Your task to perform on an android device: toggle location history Image 0: 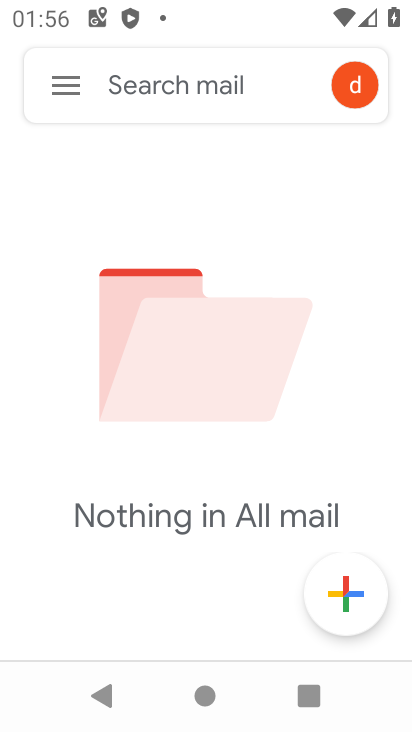
Step 0: press back button
Your task to perform on an android device: toggle location history Image 1: 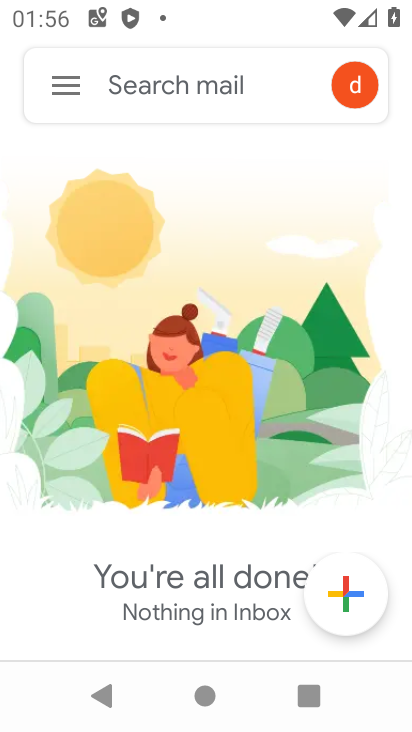
Step 1: press home button
Your task to perform on an android device: toggle location history Image 2: 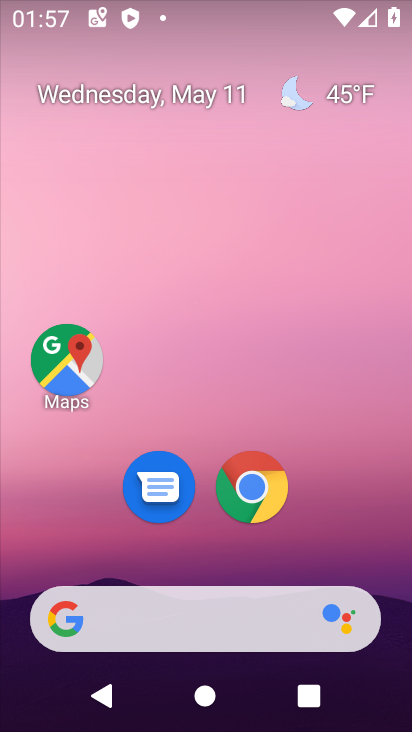
Step 2: drag from (178, 569) to (271, 143)
Your task to perform on an android device: toggle location history Image 3: 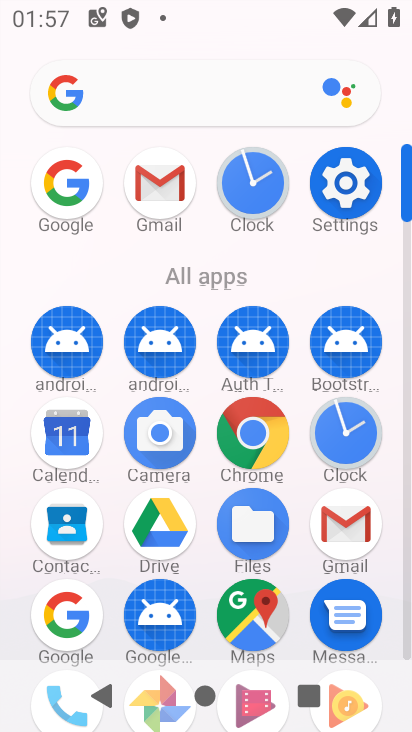
Step 3: drag from (176, 634) to (265, 324)
Your task to perform on an android device: toggle location history Image 4: 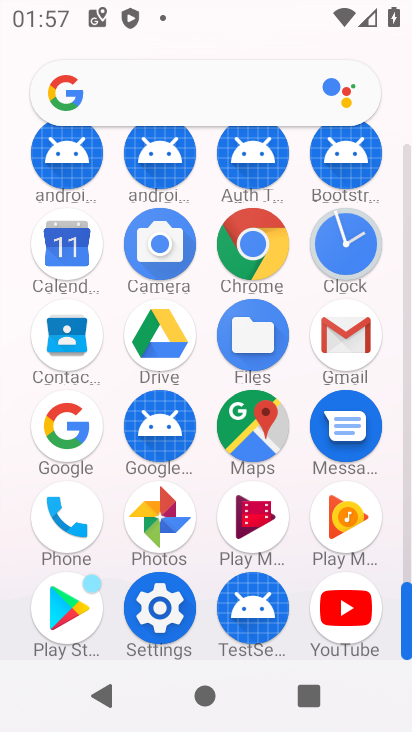
Step 4: click (167, 617)
Your task to perform on an android device: toggle location history Image 5: 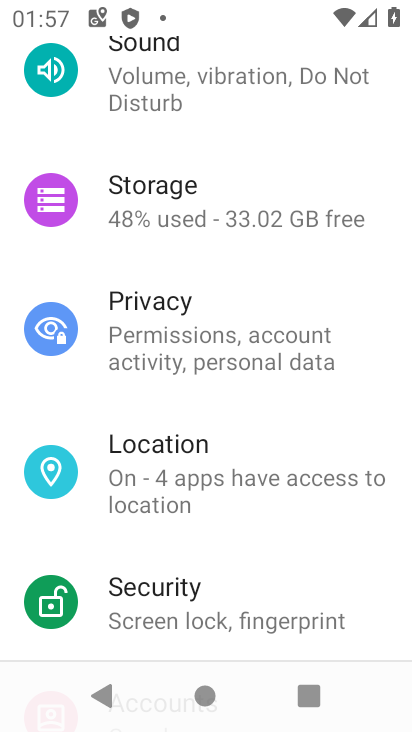
Step 5: click (251, 501)
Your task to perform on an android device: toggle location history Image 6: 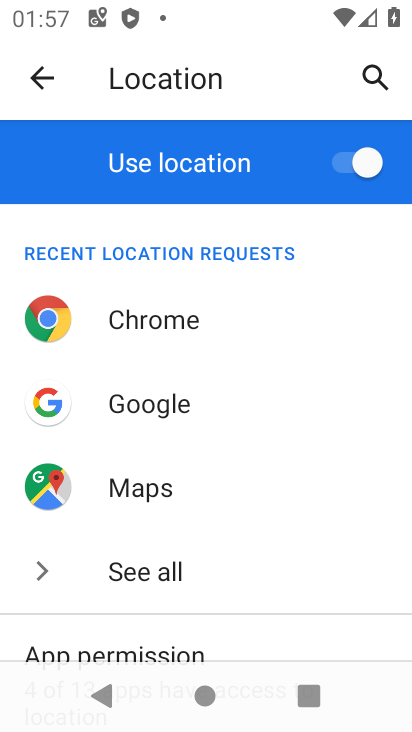
Step 6: drag from (201, 609) to (250, 377)
Your task to perform on an android device: toggle location history Image 7: 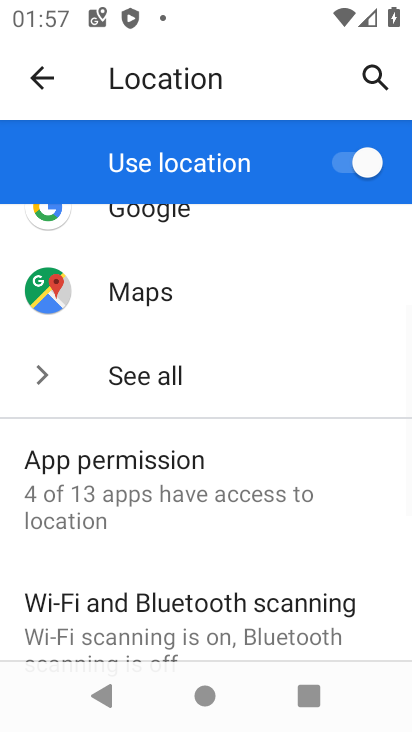
Step 7: drag from (187, 638) to (253, 316)
Your task to perform on an android device: toggle location history Image 8: 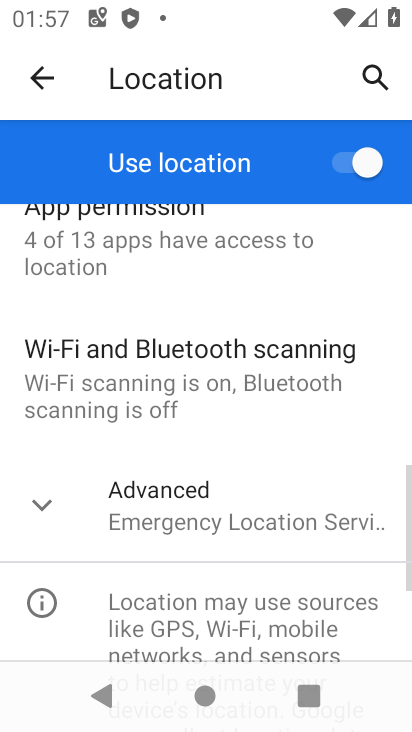
Step 8: click (234, 548)
Your task to perform on an android device: toggle location history Image 9: 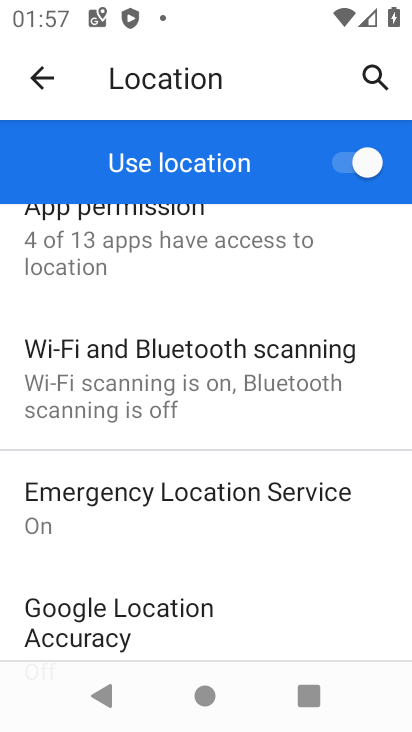
Step 9: drag from (158, 603) to (235, 270)
Your task to perform on an android device: toggle location history Image 10: 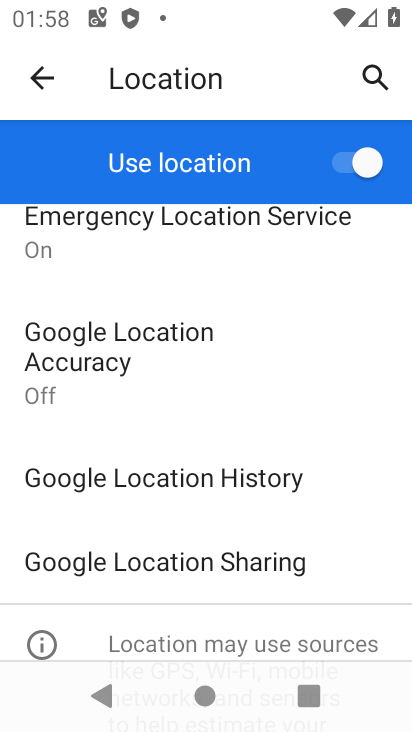
Step 10: click (215, 486)
Your task to perform on an android device: toggle location history Image 11: 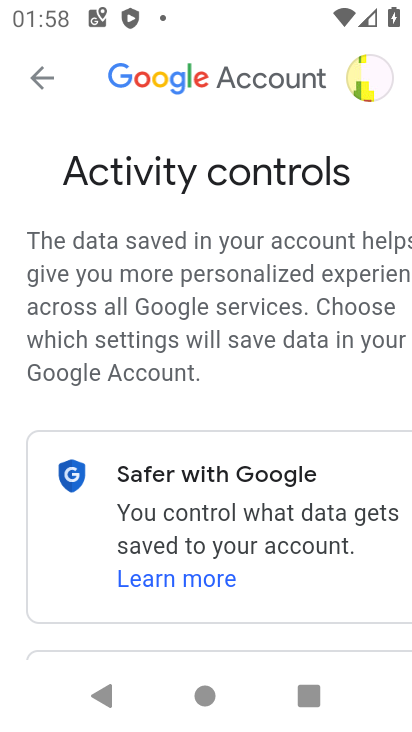
Step 11: drag from (244, 630) to (293, 411)
Your task to perform on an android device: toggle location history Image 12: 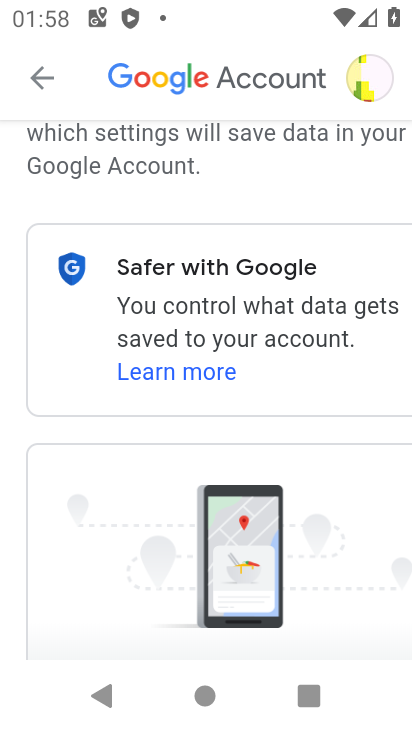
Step 12: drag from (233, 542) to (344, 112)
Your task to perform on an android device: toggle location history Image 13: 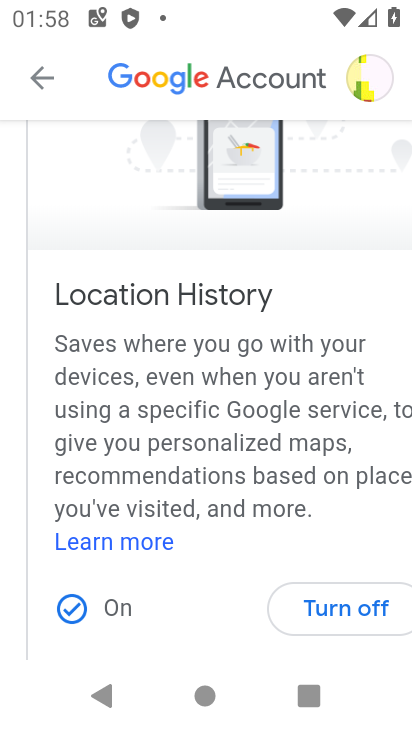
Step 13: click (351, 605)
Your task to perform on an android device: toggle location history Image 14: 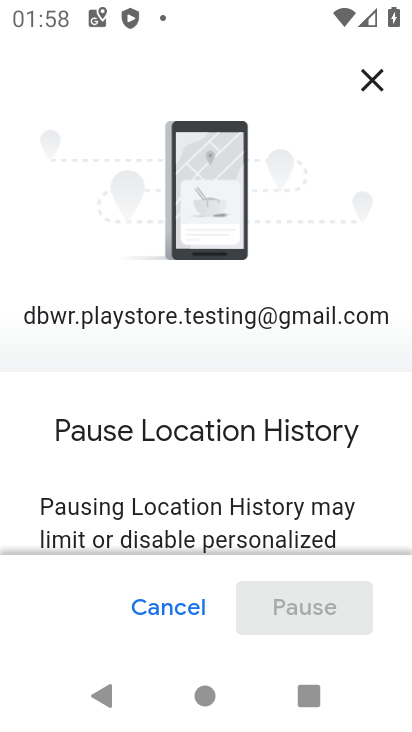
Step 14: click (217, 274)
Your task to perform on an android device: toggle location history Image 15: 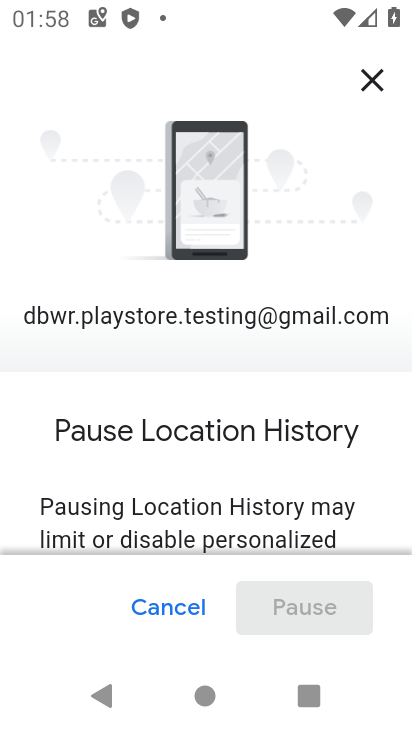
Step 15: drag from (199, 535) to (359, 60)
Your task to perform on an android device: toggle location history Image 16: 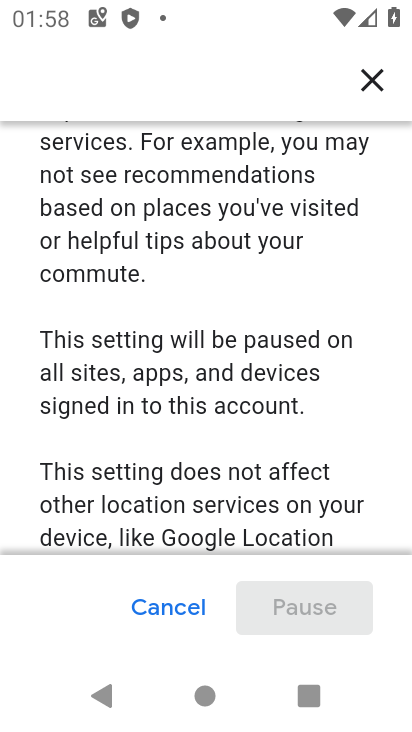
Step 16: drag from (190, 450) to (299, 4)
Your task to perform on an android device: toggle location history Image 17: 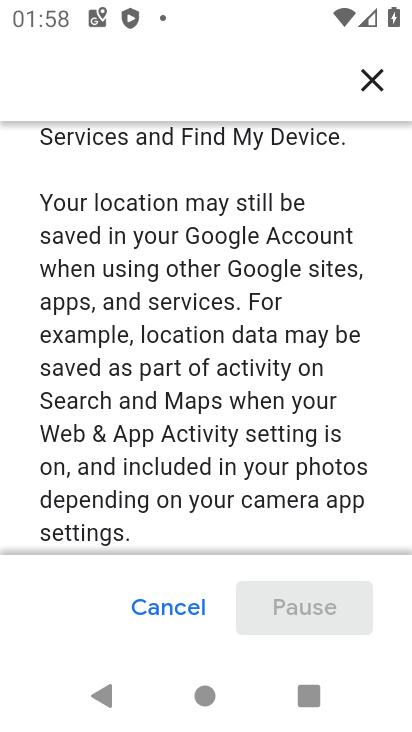
Step 17: drag from (166, 480) to (290, 0)
Your task to perform on an android device: toggle location history Image 18: 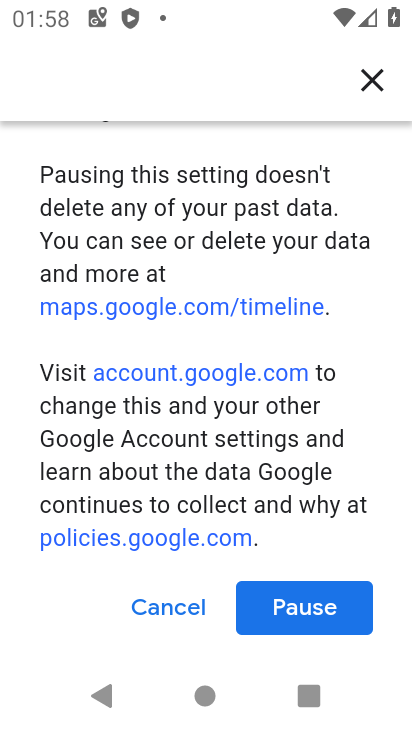
Step 18: click (330, 597)
Your task to perform on an android device: toggle location history Image 19: 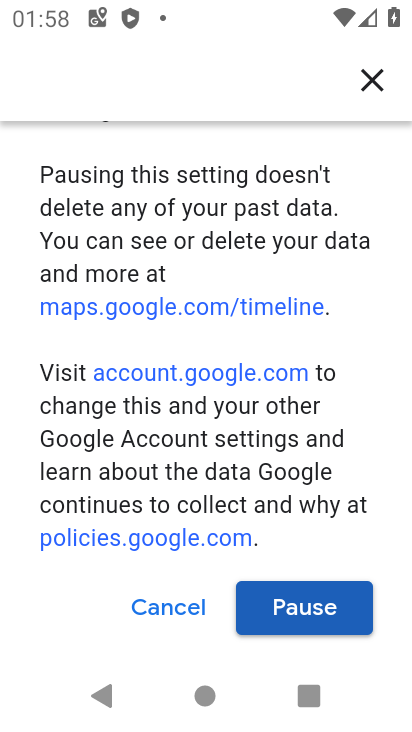
Step 19: click (310, 612)
Your task to perform on an android device: toggle location history Image 20: 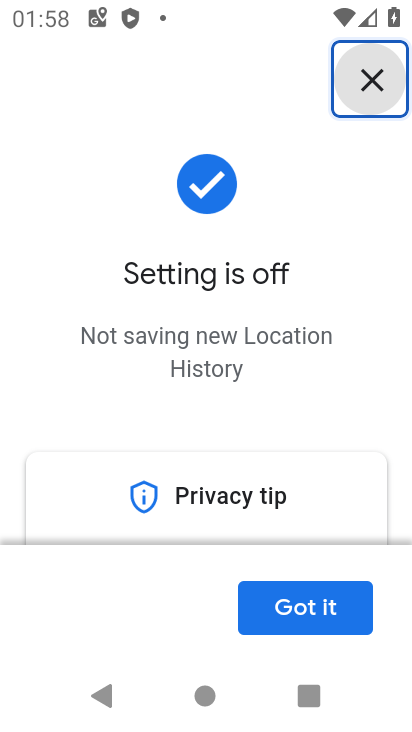
Step 20: click (321, 618)
Your task to perform on an android device: toggle location history Image 21: 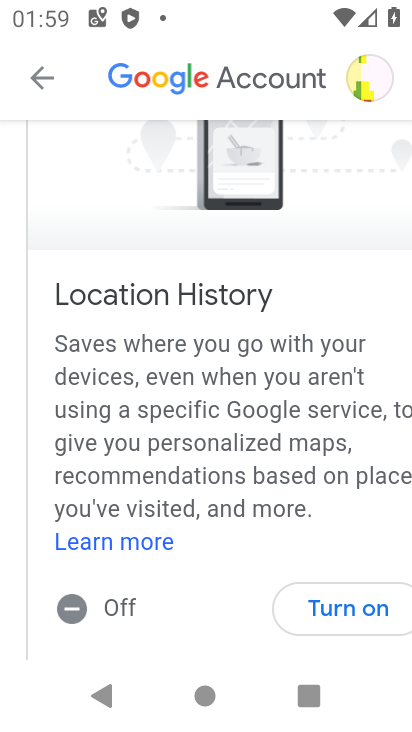
Step 21: task complete